Your task to perform on an android device: Open display settings Image 0: 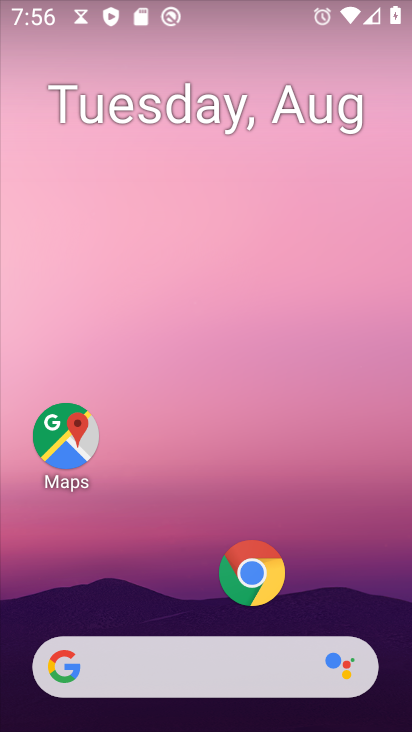
Step 0: press home button
Your task to perform on an android device: Open display settings Image 1: 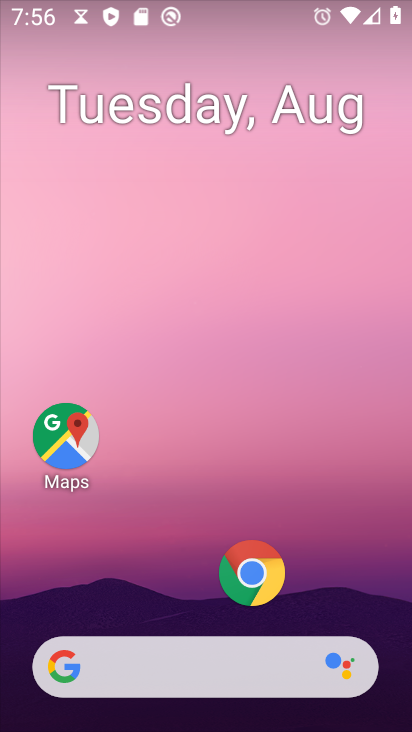
Step 1: drag from (206, 612) to (248, 43)
Your task to perform on an android device: Open display settings Image 2: 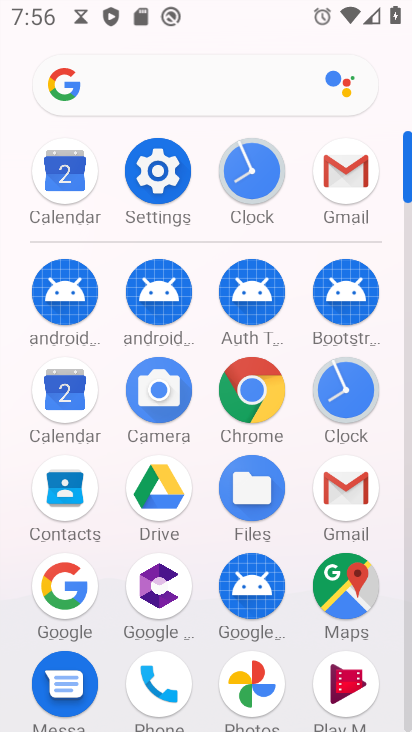
Step 2: click (154, 163)
Your task to perform on an android device: Open display settings Image 3: 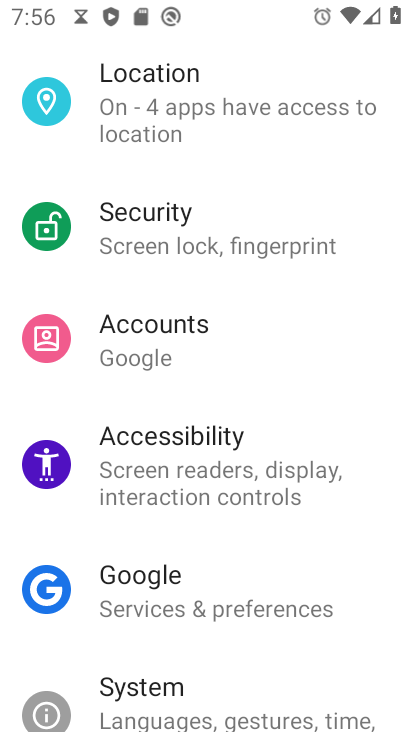
Step 3: drag from (205, 85) to (246, 618)
Your task to perform on an android device: Open display settings Image 4: 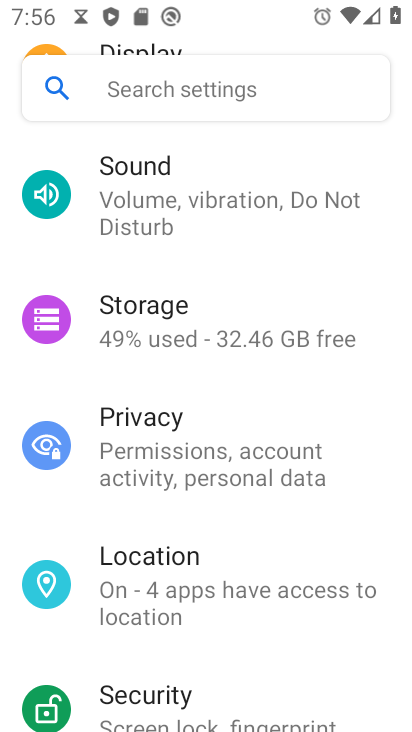
Step 4: drag from (174, 184) to (206, 600)
Your task to perform on an android device: Open display settings Image 5: 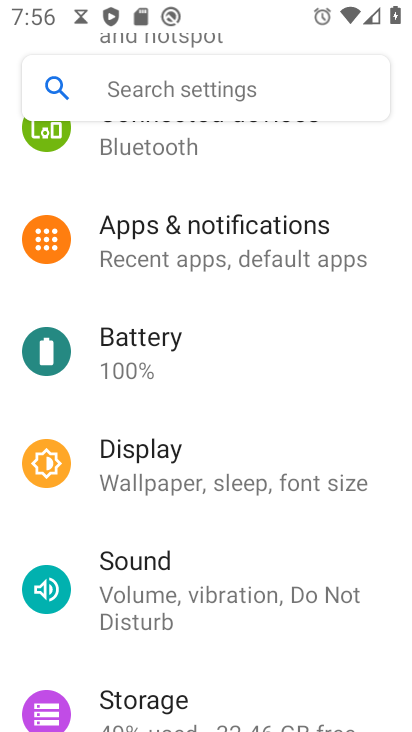
Step 5: click (198, 453)
Your task to perform on an android device: Open display settings Image 6: 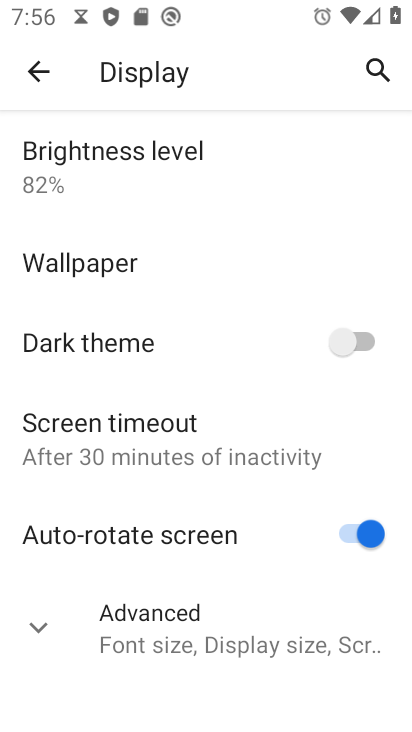
Step 6: click (41, 618)
Your task to perform on an android device: Open display settings Image 7: 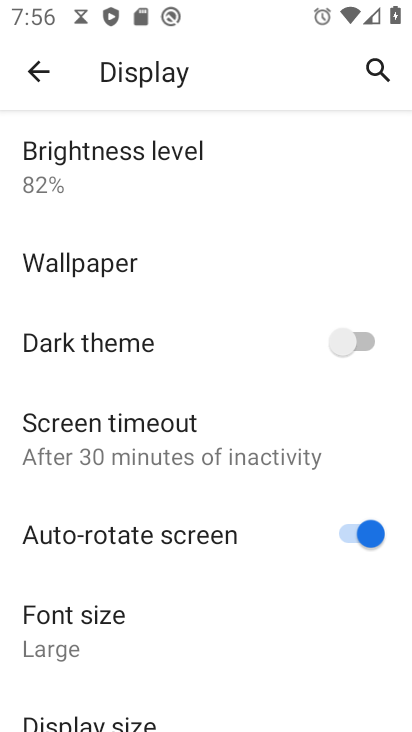
Step 7: task complete